Your task to perform on an android device: Turn on the flashlight Image 0: 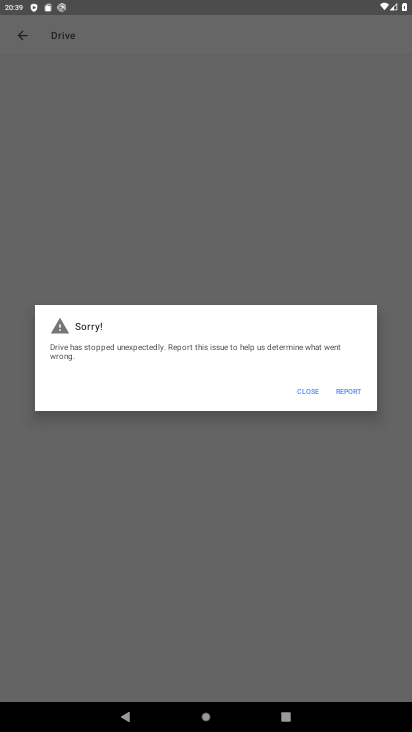
Step 0: press home button
Your task to perform on an android device: Turn on the flashlight Image 1: 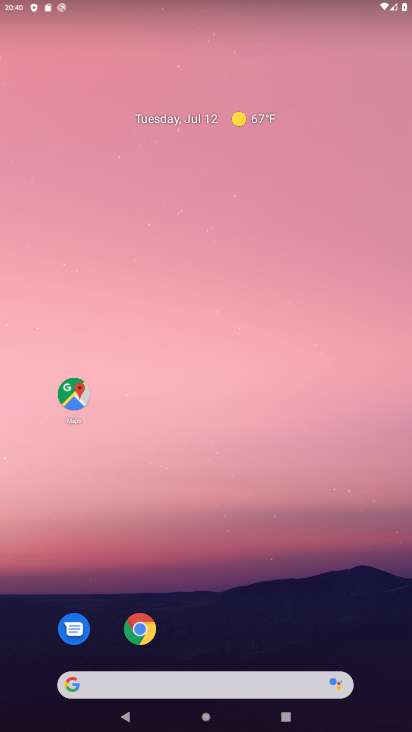
Step 1: task complete